Your task to perform on an android device: change text size in settings app Image 0: 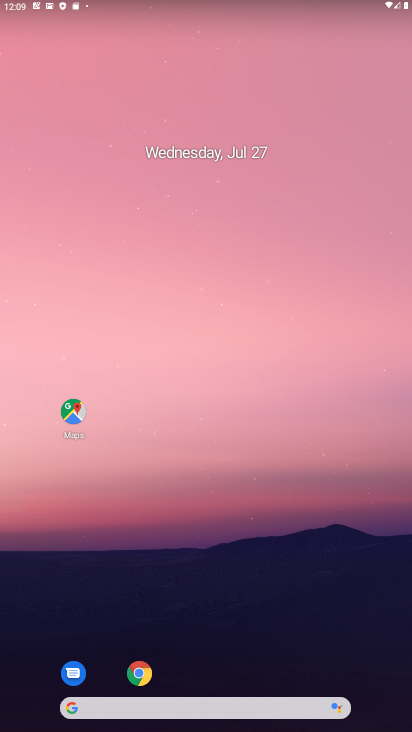
Step 0: drag from (227, 662) to (181, 280)
Your task to perform on an android device: change text size in settings app Image 1: 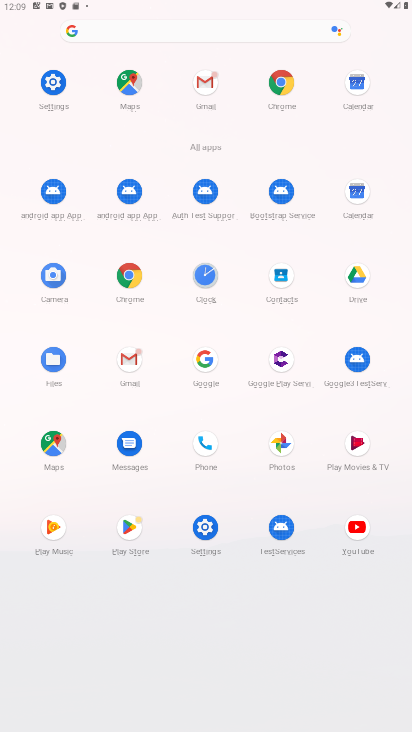
Step 1: click (42, 67)
Your task to perform on an android device: change text size in settings app Image 2: 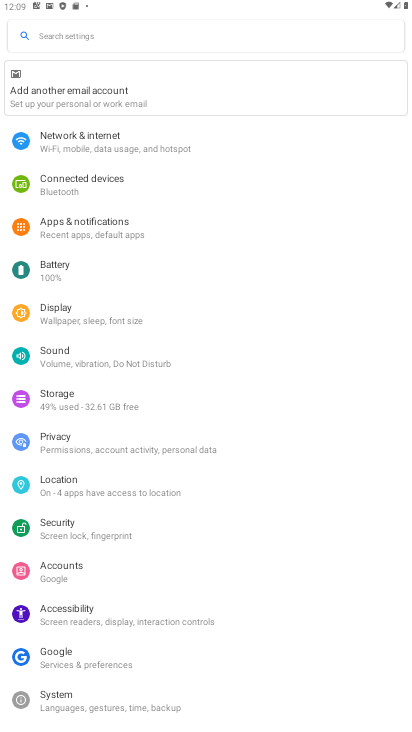
Step 2: click (89, 627)
Your task to perform on an android device: change text size in settings app Image 3: 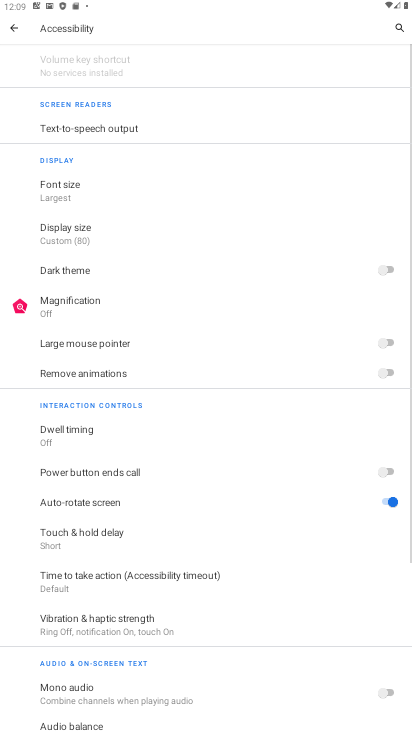
Step 3: click (71, 179)
Your task to perform on an android device: change text size in settings app Image 4: 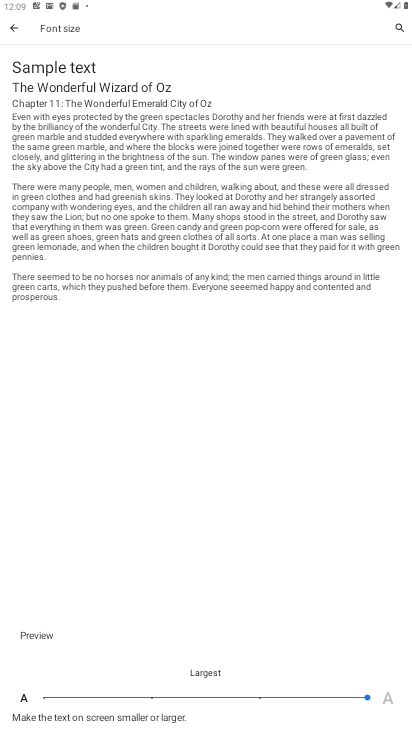
Step 4: click (274, 691)
Your task to perform on an android device: change text size in settings app Image 5: 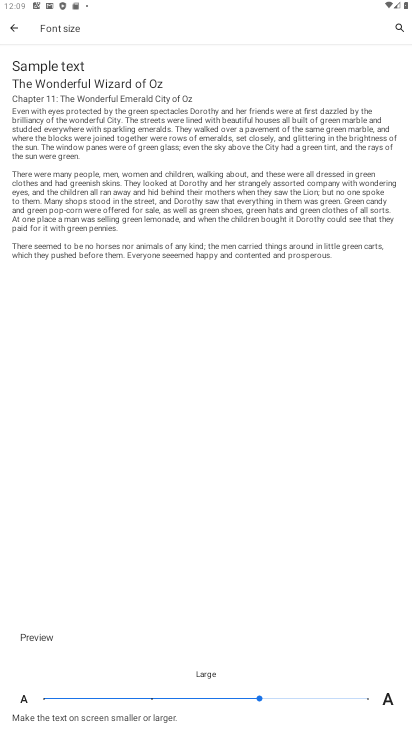
Step 5: task complete